Your task to perform on an android device: Open location settings Image 0: 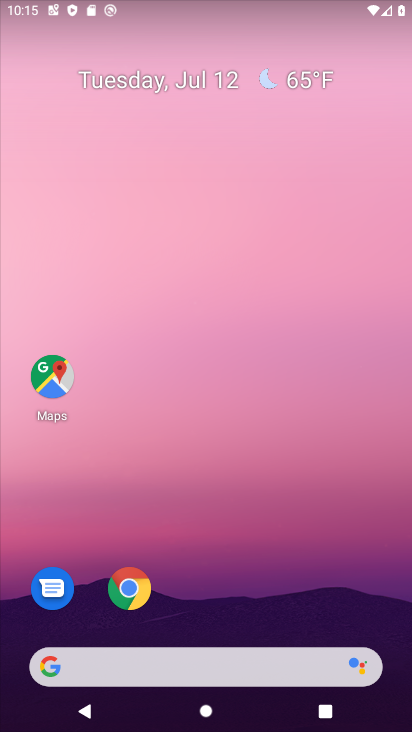
Step 0: drag from (41, 627) to (177, 0)
Your task to perform on an android device: Open location settings Image 1: 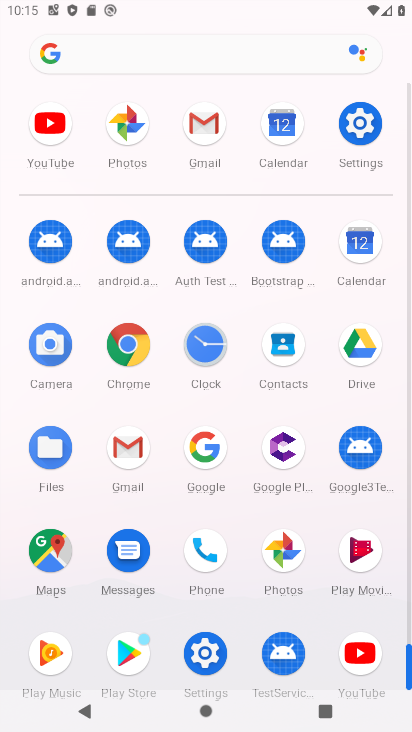
Step 1: click (207, 666)
Your task to perform on an android device: Open location settings Image 2: 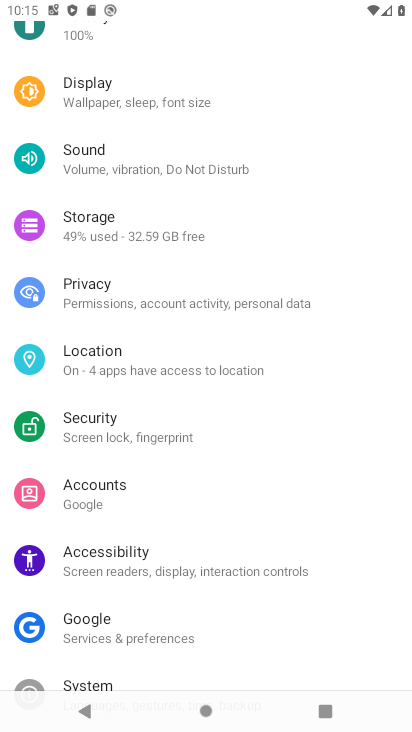
Step 2: click (149, 357)
Your task to perform on an android device: Open location settings Image 3: 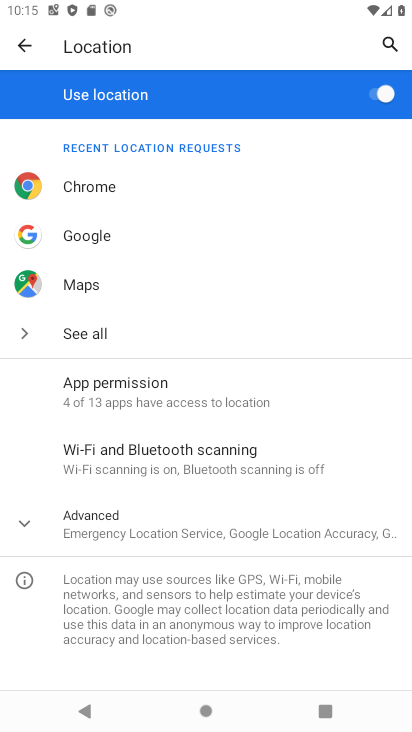
Step 3: click (112, 532)
Your task to perform on an android device: Open location settings Image 4: 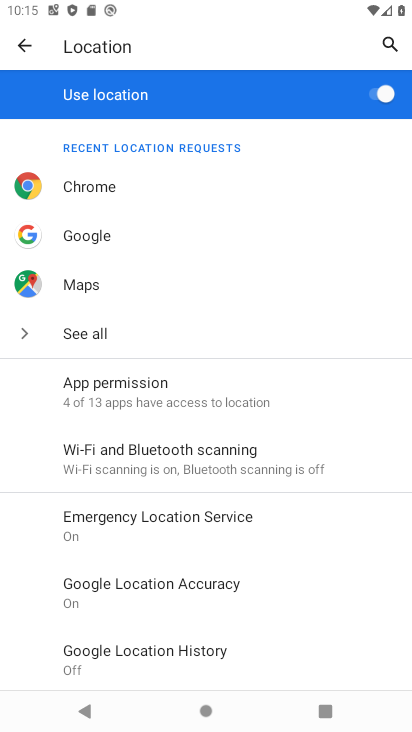
Step 4: click (93, 657)
Your task to perform on an android device: Open location settings Image 5: 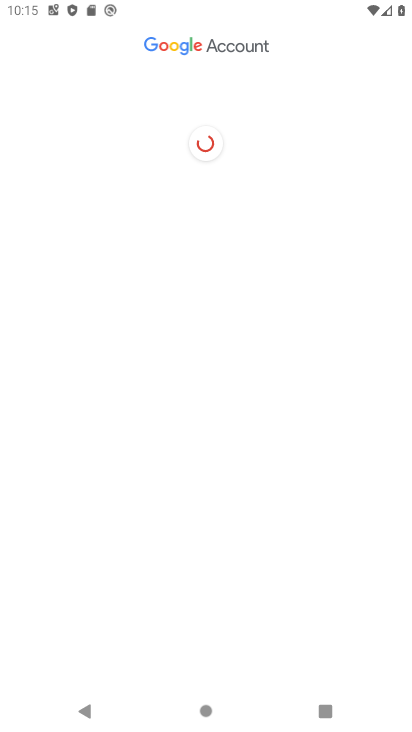
Step 5: click (21, 50)
Your task to perform on an android device: Open location settings Image 6: 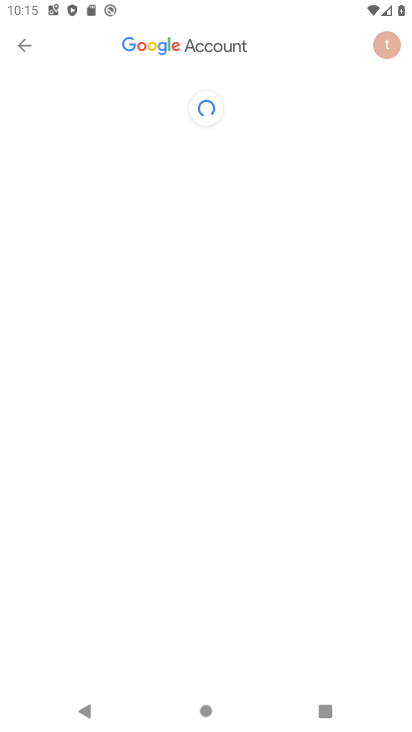
Step 6: task complete